Your task to perform on an android device: change the clock display to analog Image 0: 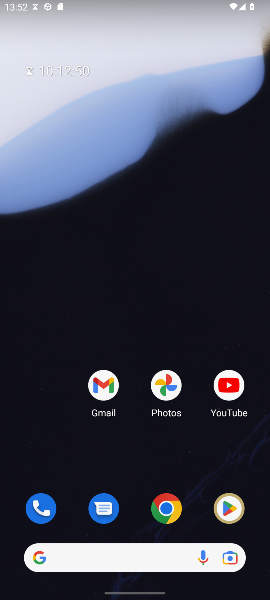
Step 0: press home button
Your task to perform on an android device: change the clock display to analog Image 1: 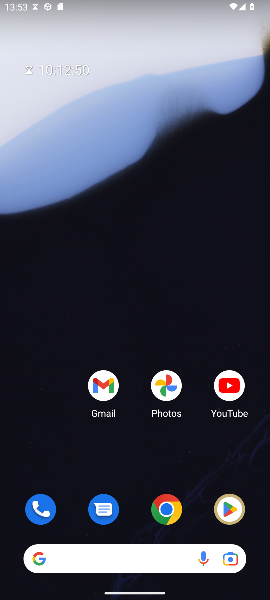
Step 1: drag from (147, 471) to (179, 34)
Your task to perform on an android device: change the clock display to analog Image 2: 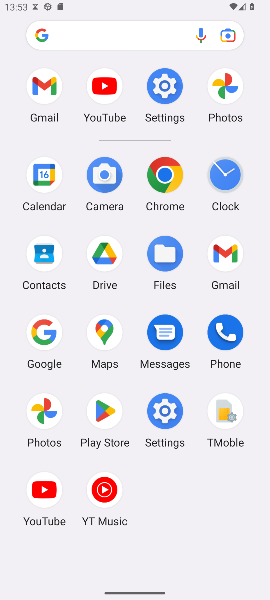
Step 2: click (223, 190)
Your task to perform on an android device: change the clock display to analog Image 3: 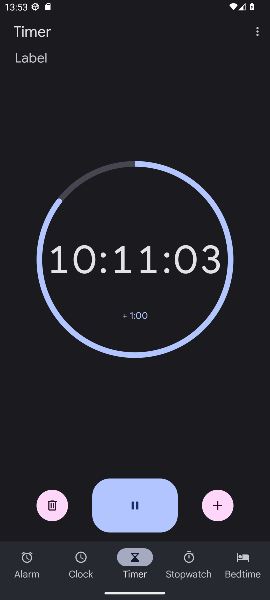
Step 3: click (257, 32)
Your task to perform on an android device: change the clock display to analog Image 4: 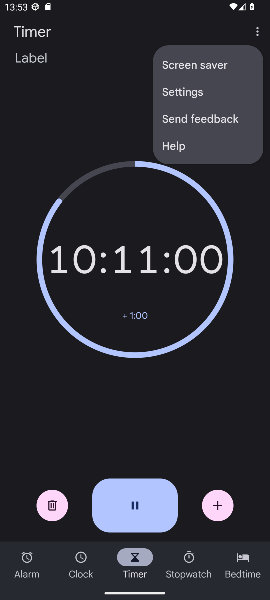
Step 4: click (186, 93)
Your task to perform on an android device: change the clock display to analog Image 5: 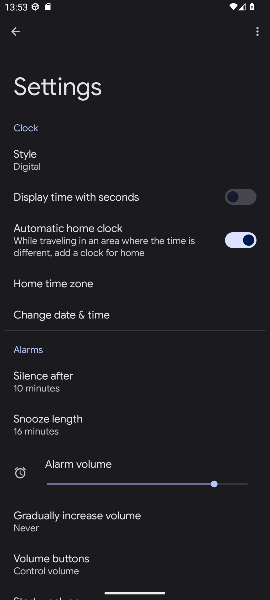
Step 5: click (23, 164)
Your task to perform on an android device: change the clock display to analog Image 6: 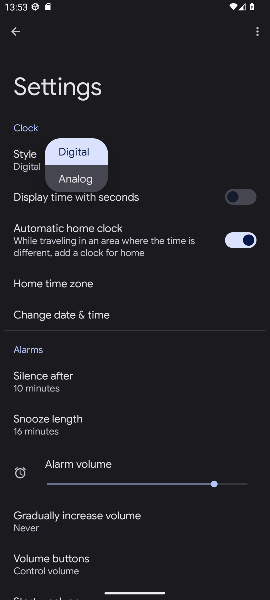
Step 6: click (68, 179)
Your task to perform on an android device: change the clock display to analog Image 7: 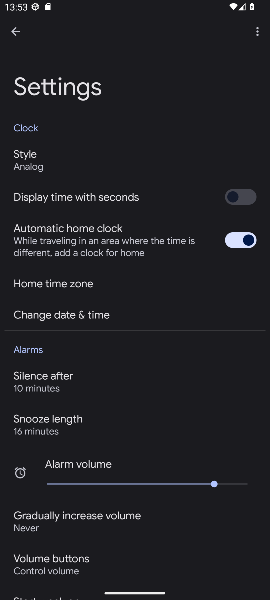
Step 7: task complete